Your task to perform on an android device: Open settings on Google Maps Image 0: 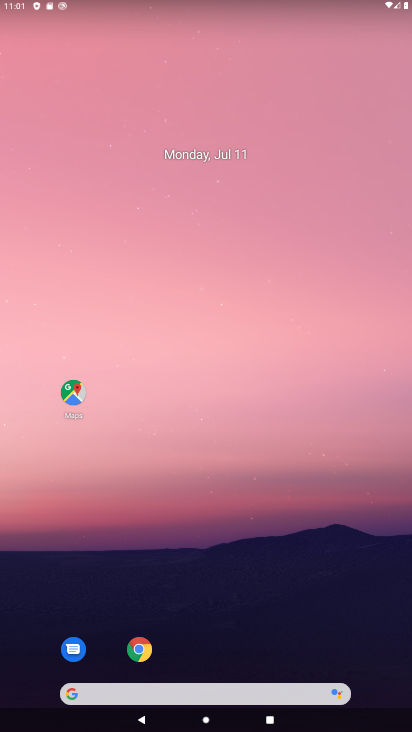
Step 0: click (72, 394)
Your task to perform on an android device: Open settings on Google Maps Image 1: 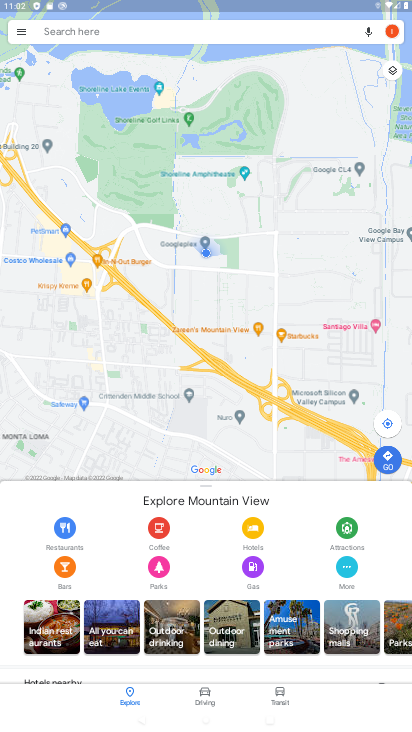
Step 1: click (20, 30)
Your task to perform on an android device: Open settings on Google Maps Image 2: 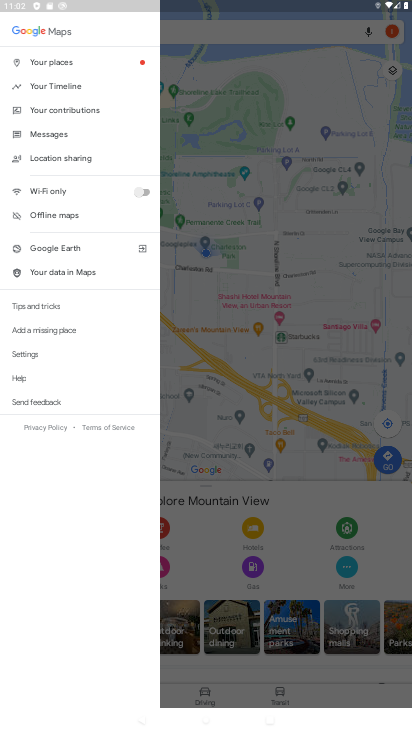
Step 2: click (27, 355)
Your task to perform on an android device: Open settings on Google Maps Image 3: 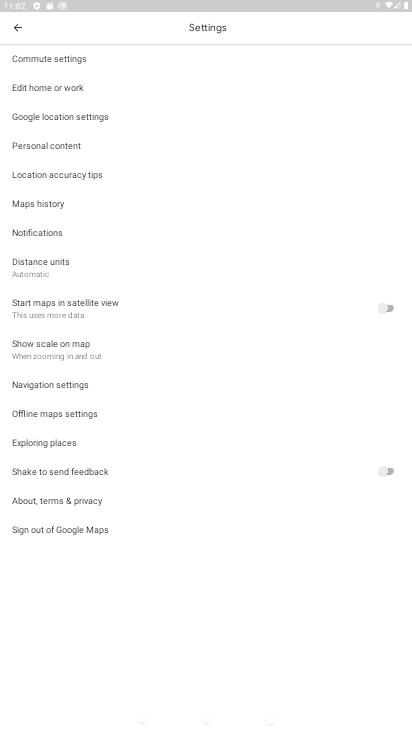
Step 3: task complete